Your task to perform on an android device: move a message to another label in the gmail app Image 0: 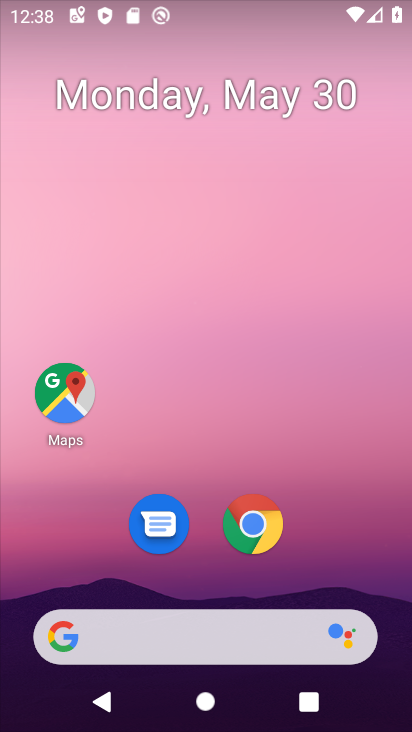
Step 0: drag from (338, 260) to (331, 2)
Your task to perform on an android device: move a message to another label in the gmail app Image 1: 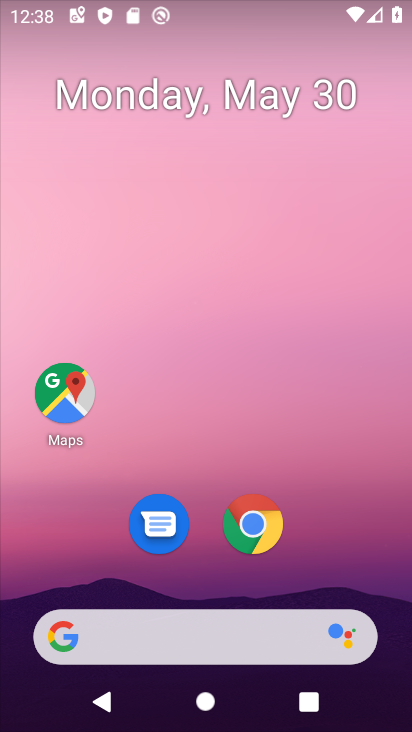
Step 1: drag from (323, 533) to (324, 0)
Your task to perform on an android device: move a message to another label in the gmail app Image 2: 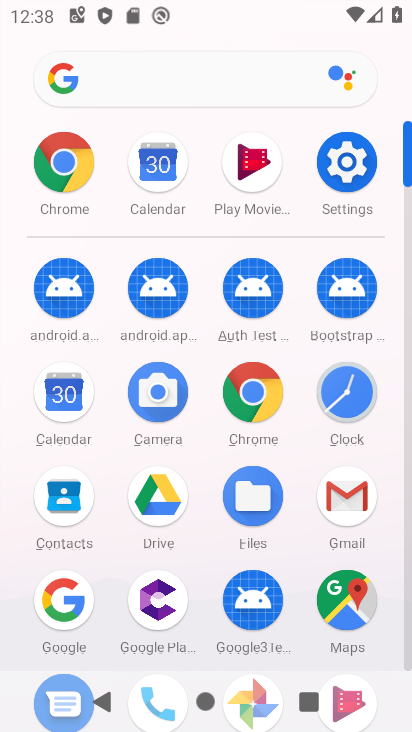
Step 2: click (339, 501)
Your task to perform on an android device: move a message to another label in the gmail app Image 3: 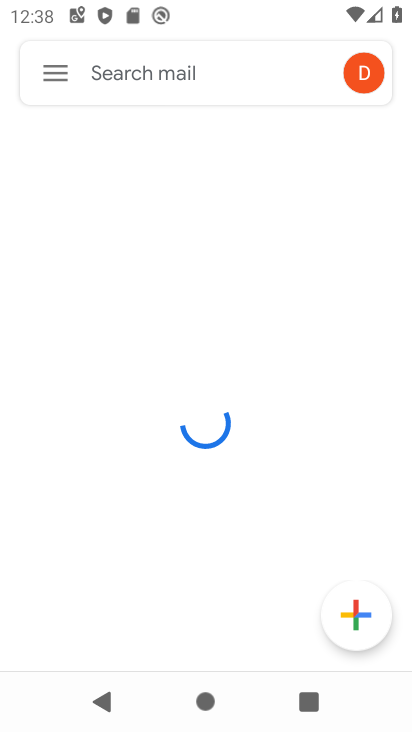
Step 3: click (54, 65)
Your task to perform on an android device: move a message to another label in the gmail app Image 4: 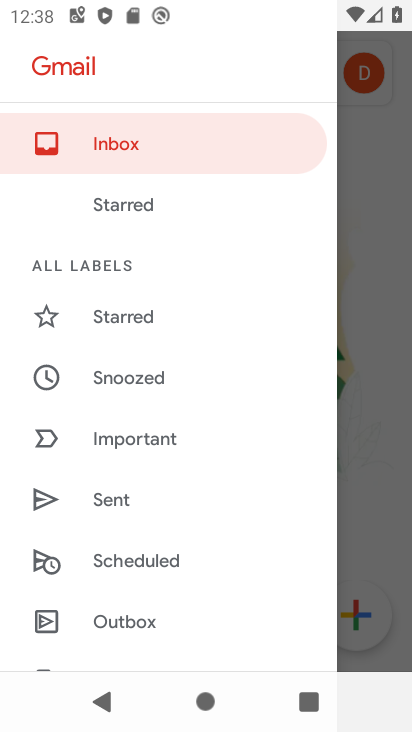
Step 4: drag from (169, 526) to (211, 85)
Your task to perform on an android device: move a message to another label in the gmail app Image 5: 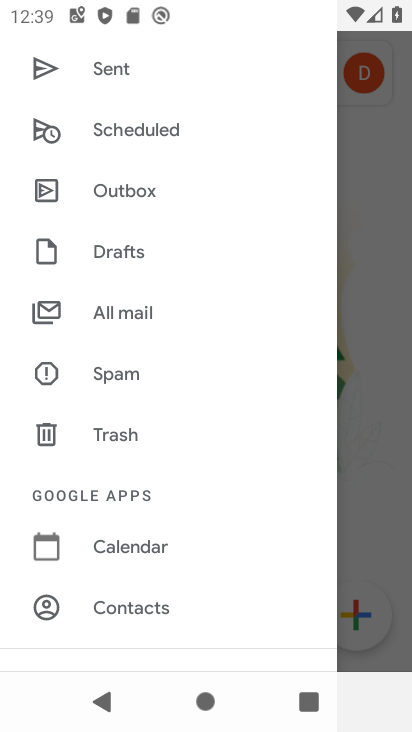
Step 5: click (154, 310)
Your task to perform on an android device: move a message to another label in the gmail app Image 6: 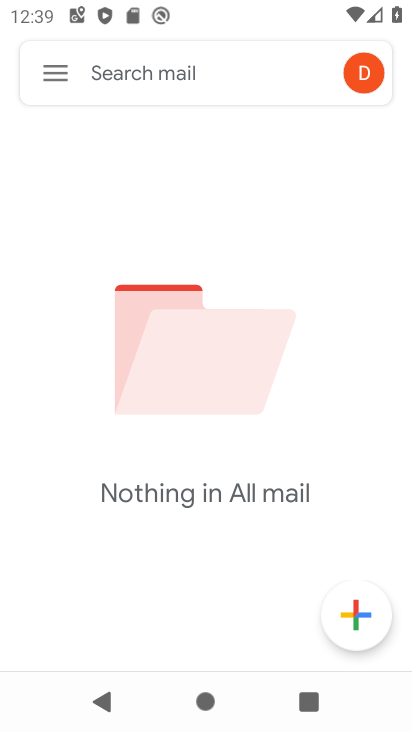
Step 6: task complete